Your task to perform on an android device: set an alarm Image 0: 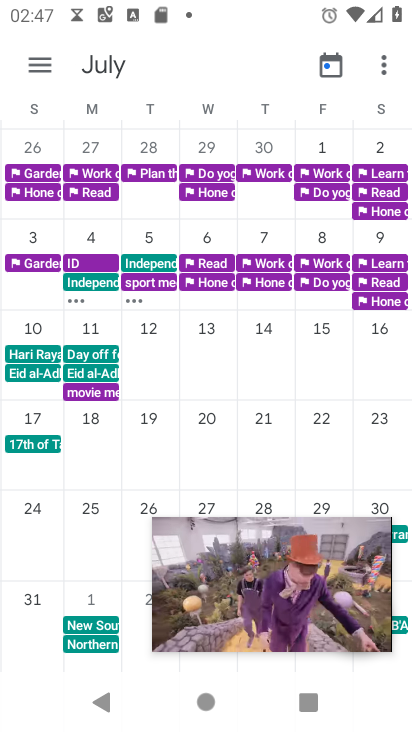
Step 0: press home button
Your task to perform on an android device: set an alarm Image 1: 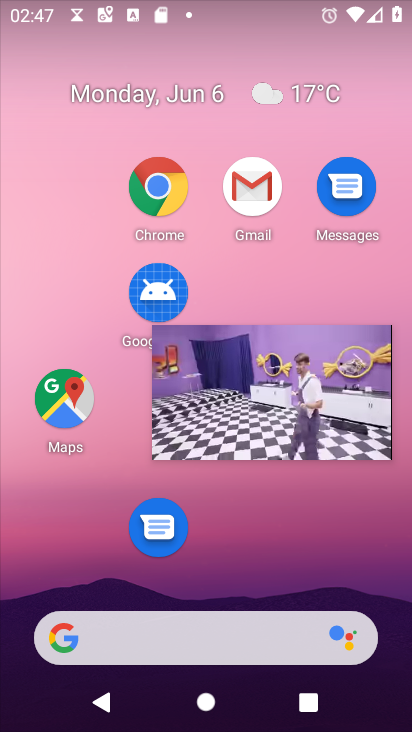
Step 1: click (276, 385)
Your task to perform on an android device: set an alarm Image 2: 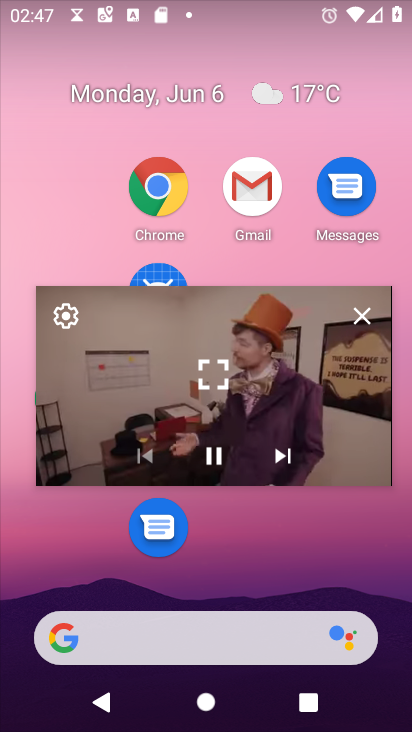
Step 2: click (274, 373)
Your task to perform on an android device: set an alarm Image 3: 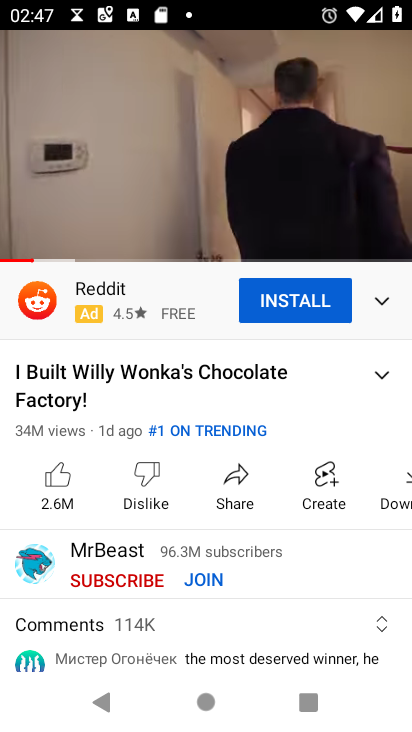
Step 3: click (238, 137)
Your task to perform on an android device: set an alarm Image 4: 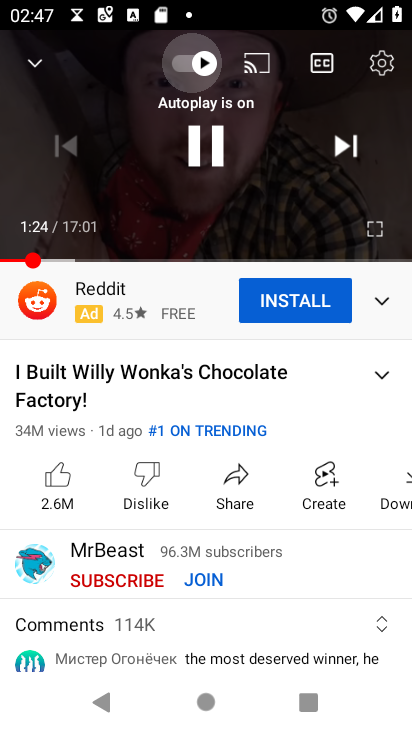
Step 4: press home button
Your task to perform on an android device: set an alarm Image 5: 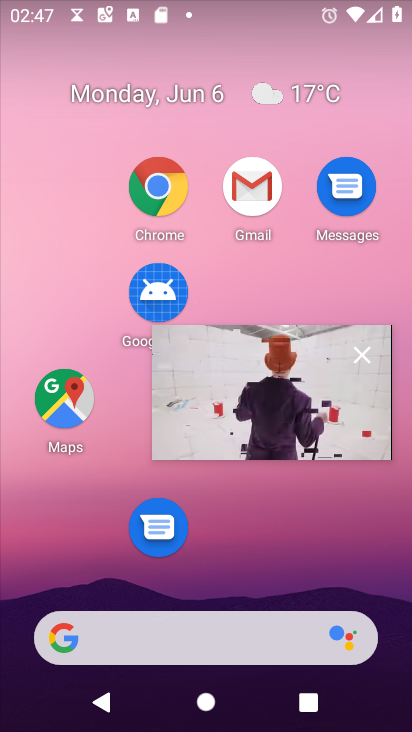
Step 5: click (362, 350)
Your task to perform on an android device: set an alarm Image 6: 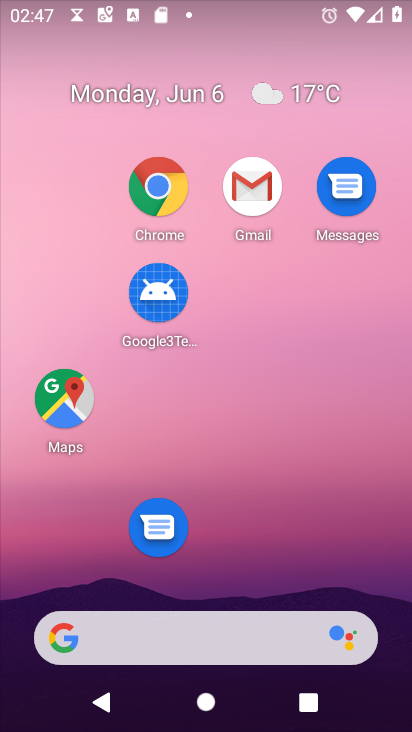
Step 6: drag from (340, 461) to (320, 31)
Your task to perform on an android device: set an alarm Image 7: 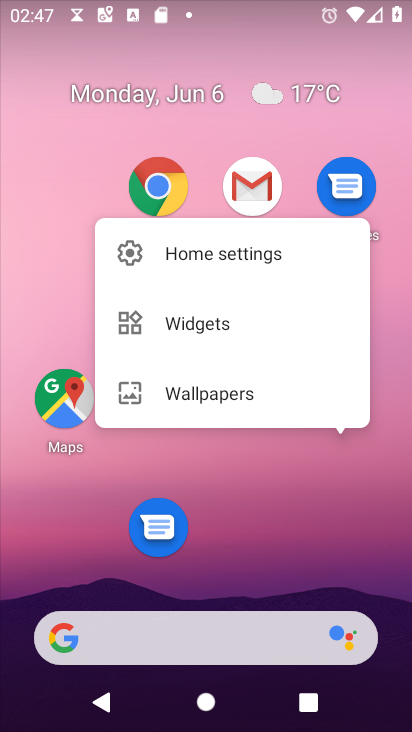
Step 7: click (359, 479)
Your task to perform on an android device: set an alarm Image 8: 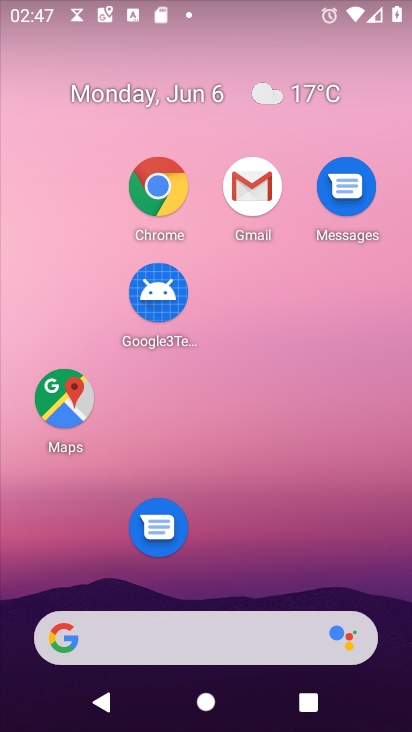
Step 8: drag from (313, 485) to (306, 85)
Your task to perform on an android device: set an alarm Image 9: 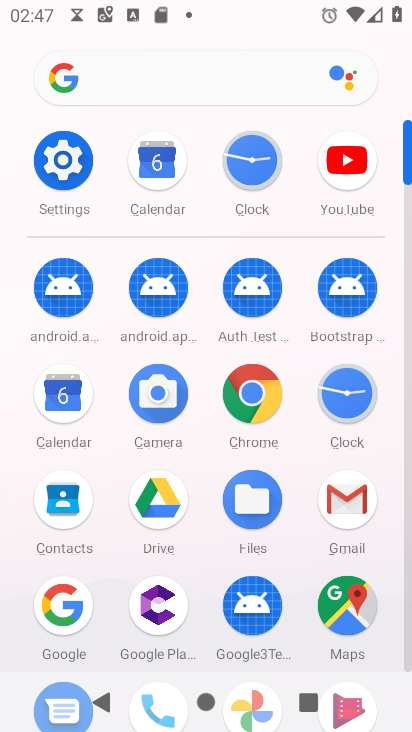
Step 9: click (337, 384)
Your task to perform on an android device: set an alarm Image 10: 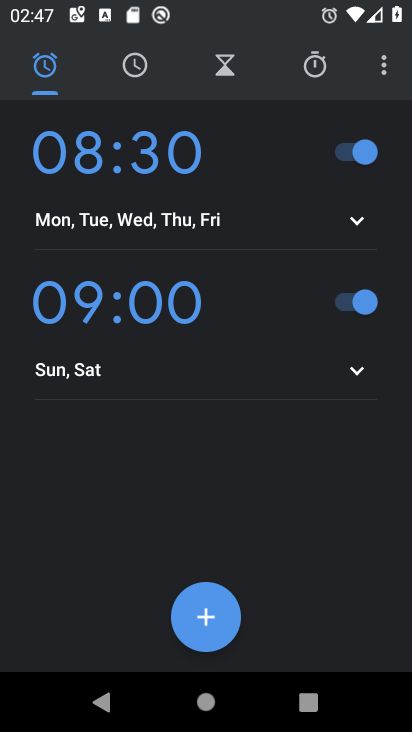
Step 10: task complete